Your task to perform on an android device: Turn on the flashlight Image 0: 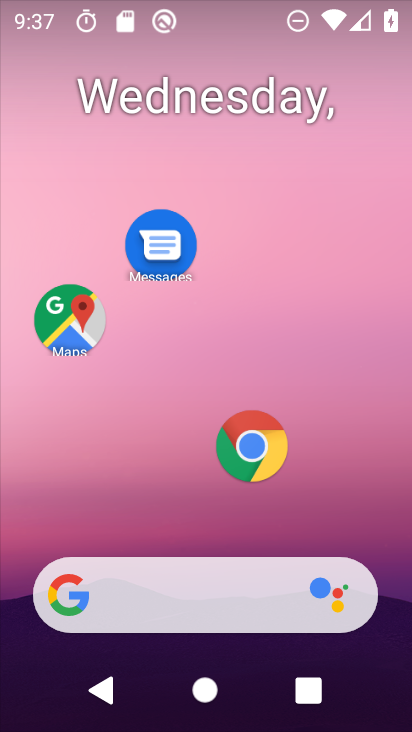
Step 0: drag from (216, 543) to (271, 140)
Your task to perform on an android device: Turn on the flashlight Image 1: 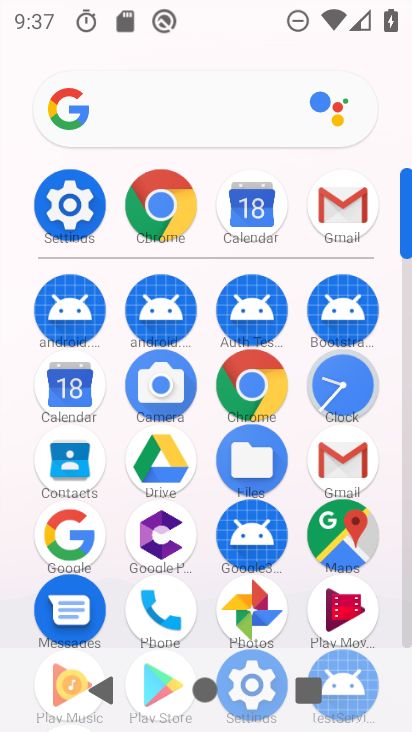
Step 1: click (71, 193)
Your task to perform on an android device: Turn on the flashlight Image 2: 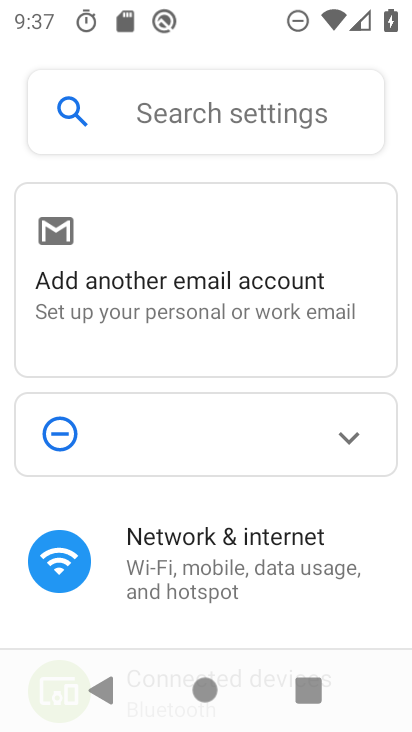
Step 2: click (225, 118)
Your task to perform on an android device: Turn on the flashlight Image 3: 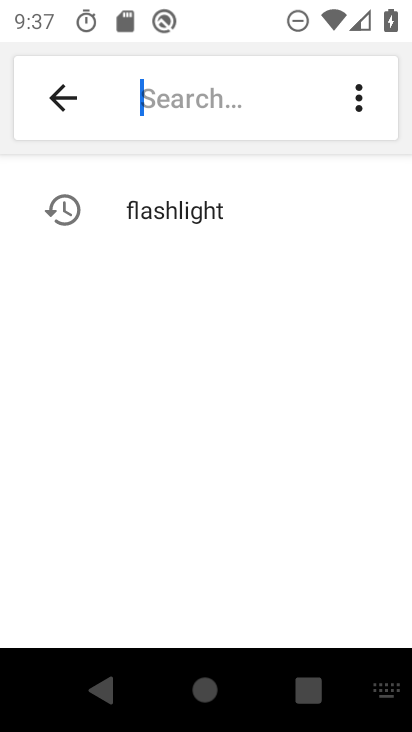
Step 3: click (202, 201)
Your task to perform on an android device: Turn on the flashlight Image 4: 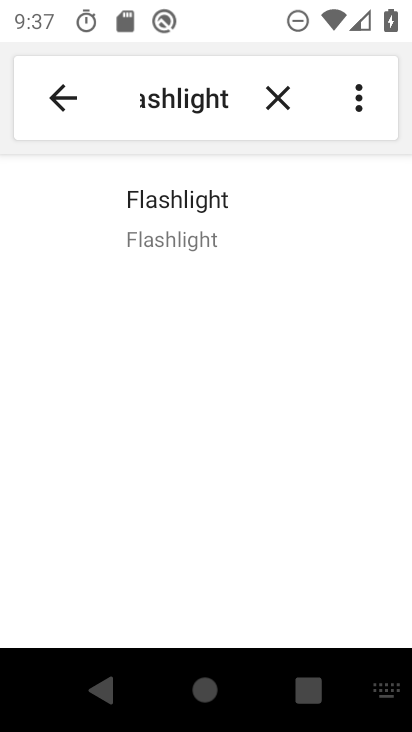
Step 4: click (201, 203)
Your task to perform on an android device: Turn on the flashlight Image 5: 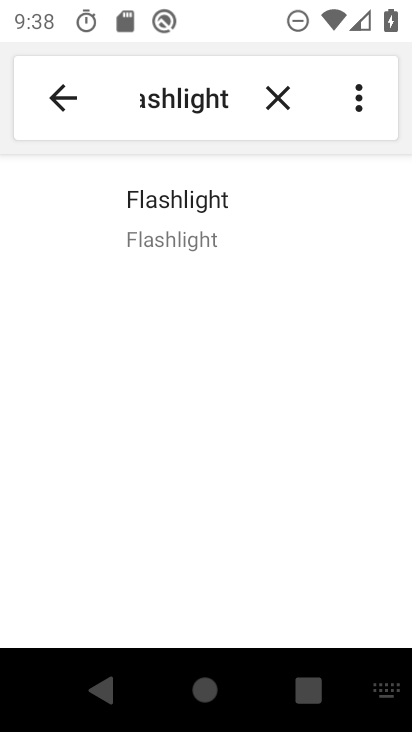
Step 5: click (235, 215)
Your task to perform on an android device: Turn on the flashlight Image 6: 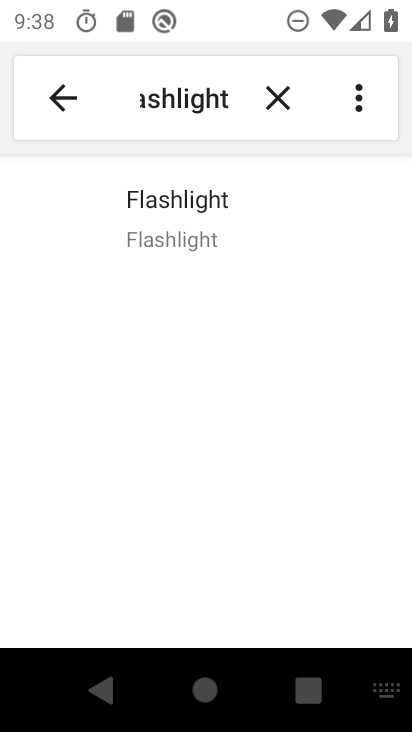
Step 6: task complete